Your task to perform on an android device: Open Yahoo.com Image 0: 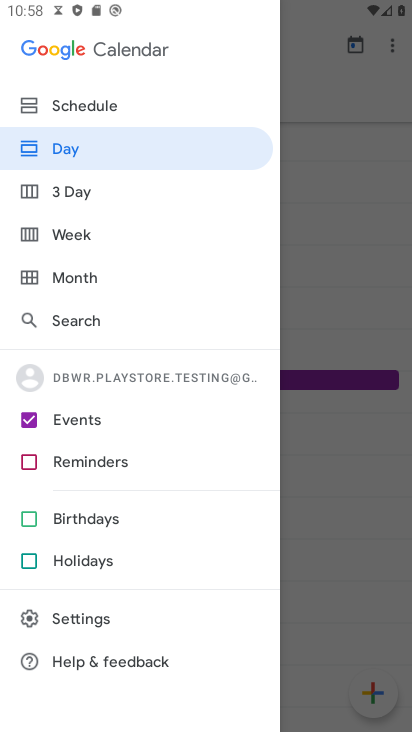
Step 0: press home button
Your task to perform on an android device: Open Yahoo.com Image 1: 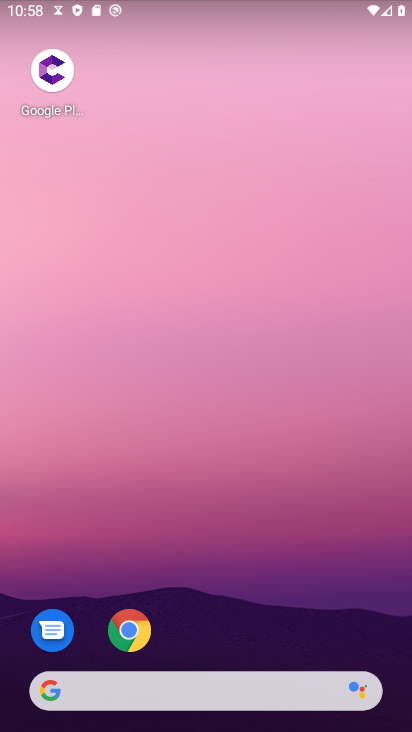
Step 1: click (122, 631)
Your task to perform on an android device: Open Yahoo.com Image 2: 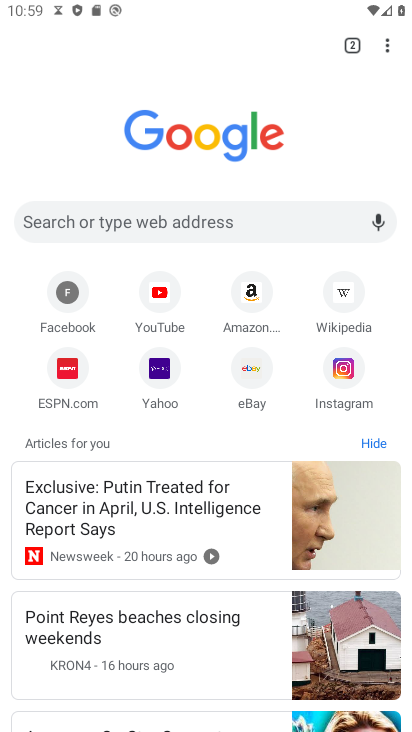
Step 2: click (152, 380)
Your task to perform on an android device: Open Yahoo.com Image 3: 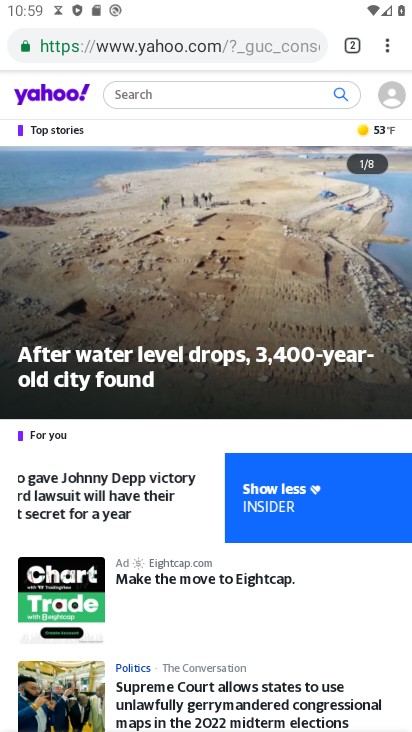
Step 3: task complete